Your task to perform on an android device: What's on my calendar today? Image 0: 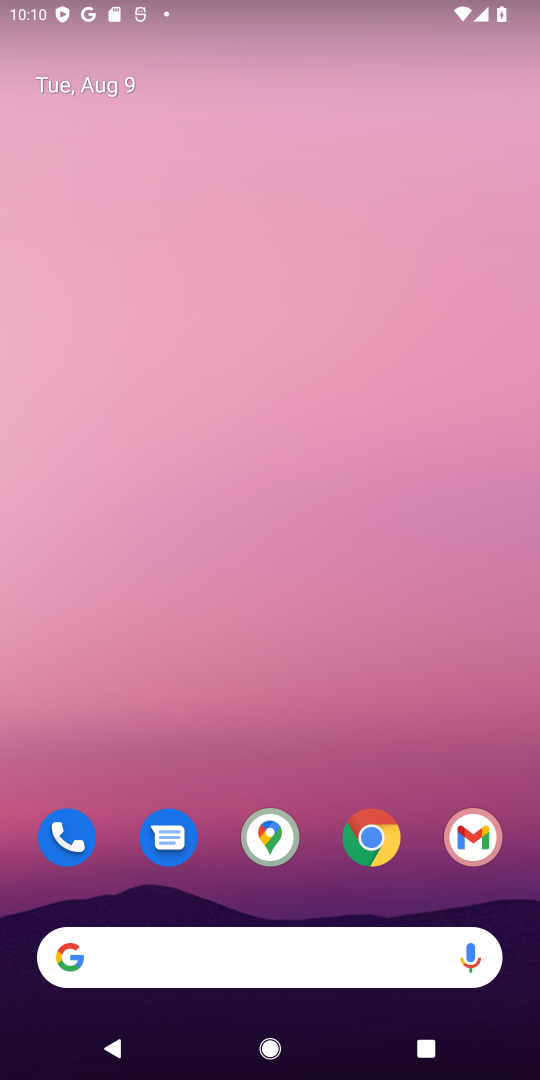
Step 0: drag from (320, 917) to (377, 158)
Your task to perform on an android device: What's on my calendar today? Image 1: 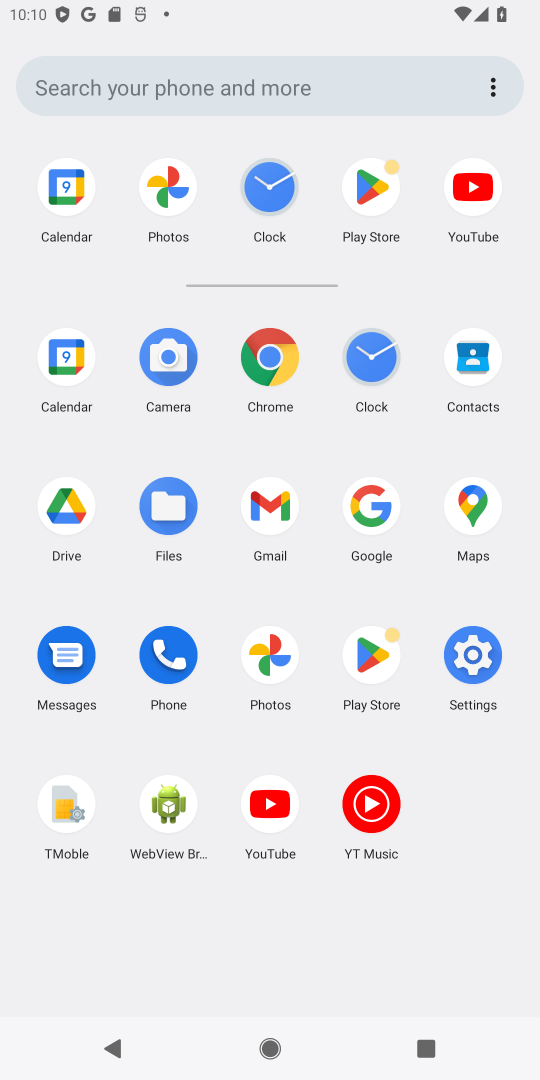
Step 1: click (64, 361)
Your task to perform on an android device: What's on my calendar today? Image 2: 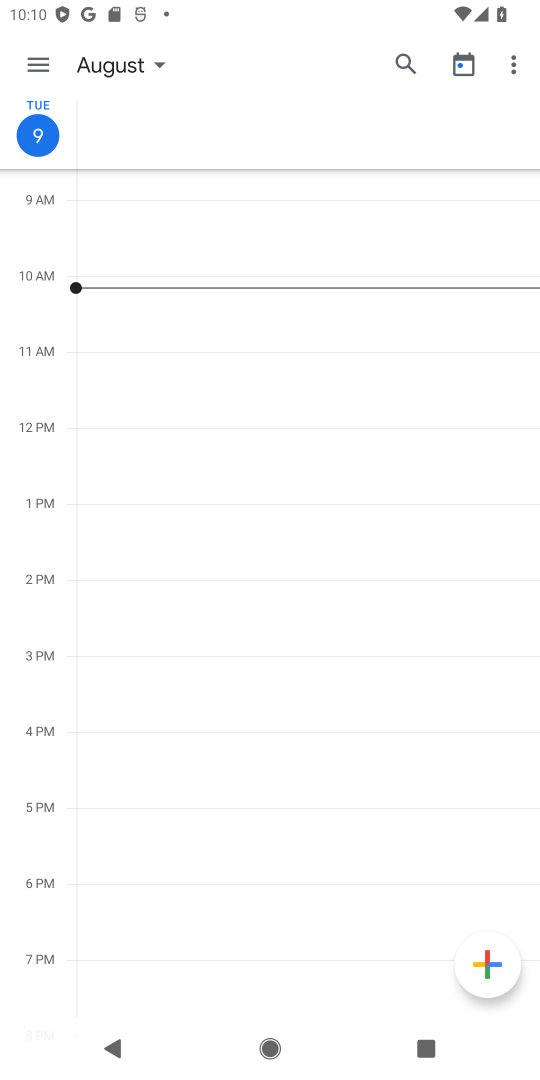
Step 2: task complete